Your task to perform on an android device: change alarm snooze length Image 0: 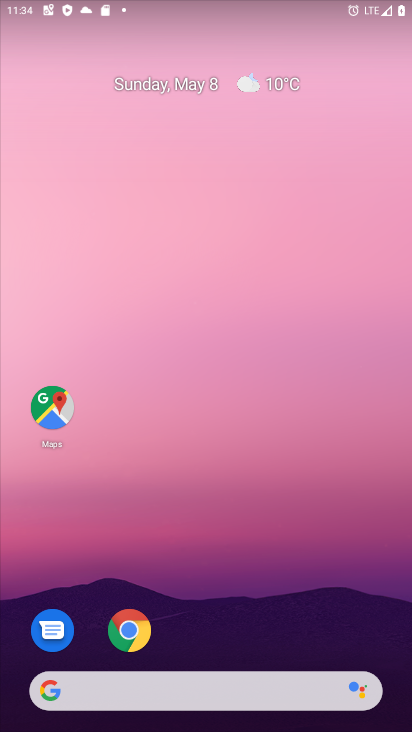
Step 0: drag from (381, 653) to (284, 60)
Your task to perform on an android device: change alarm snooze length Image 1: 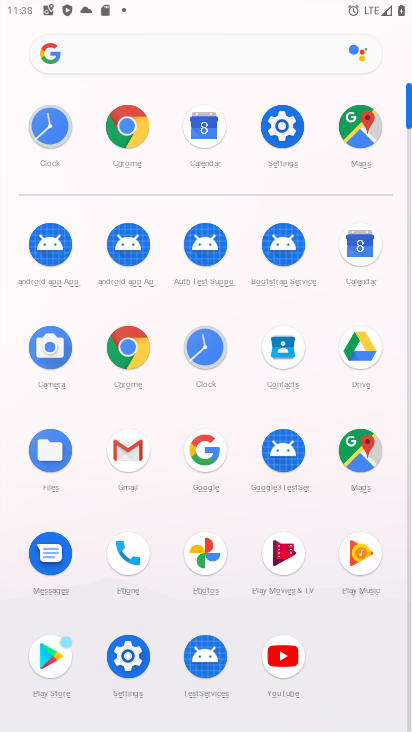
Step 1: click (197, 355)
Your task to perform on an android device: change alarm snooze length Image 2: 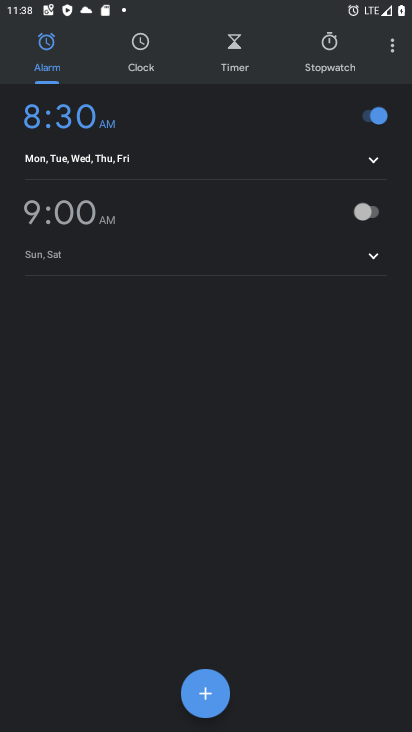
Step 2: click (393, 54)
Your task to perform on an android device: change alarm snooze length Image 3: 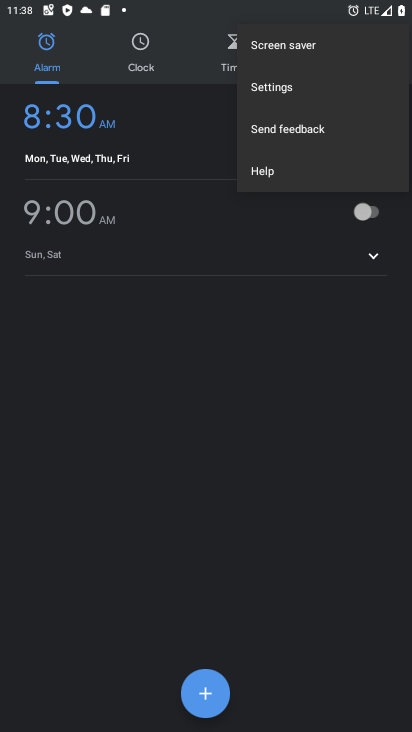
Step 3: click (245, 105)
Your task to perform on an android device: change alarm snooze length Image 4: 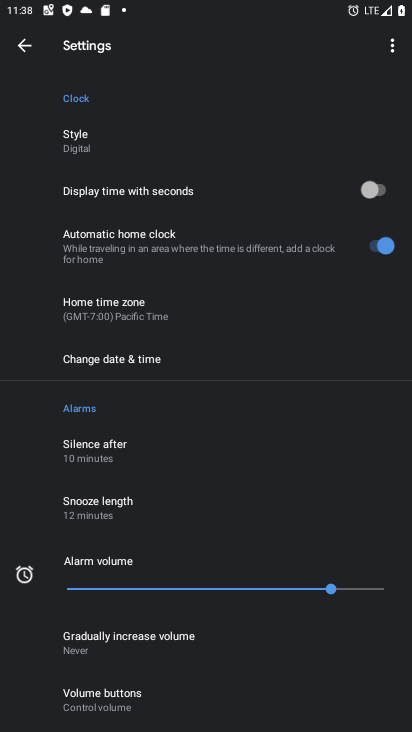
Step 4: click (135, 514)
Your task to perform on an android device: change alarm snooze length Image 5: 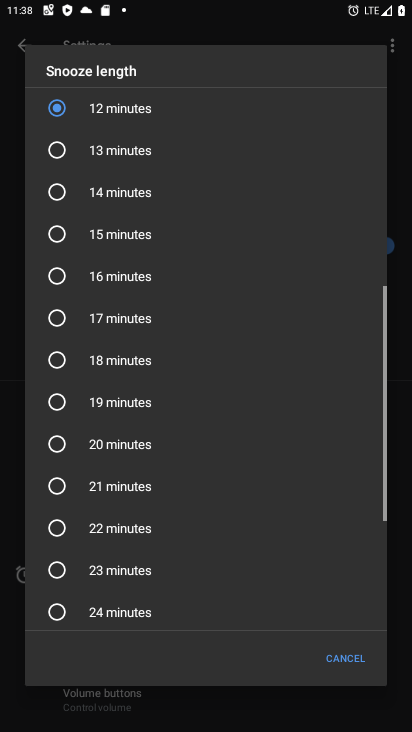
Step 5: click (101, 357)
Your task to perform on an android device: change alarm snooze length Image 6: 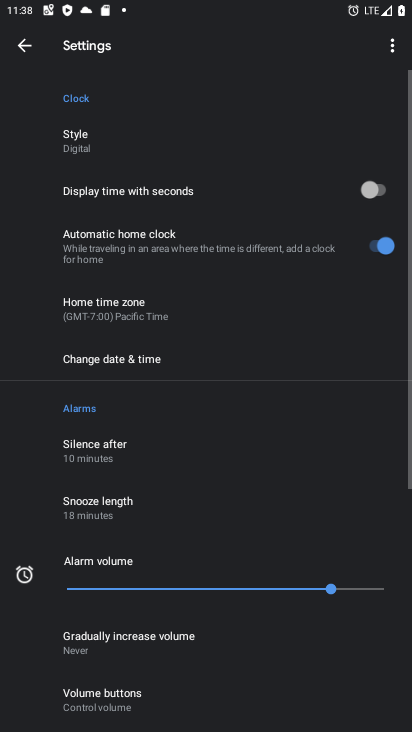
Step 6: task complete